Your task to perform on an android device: open app "Spotify" Image 0: 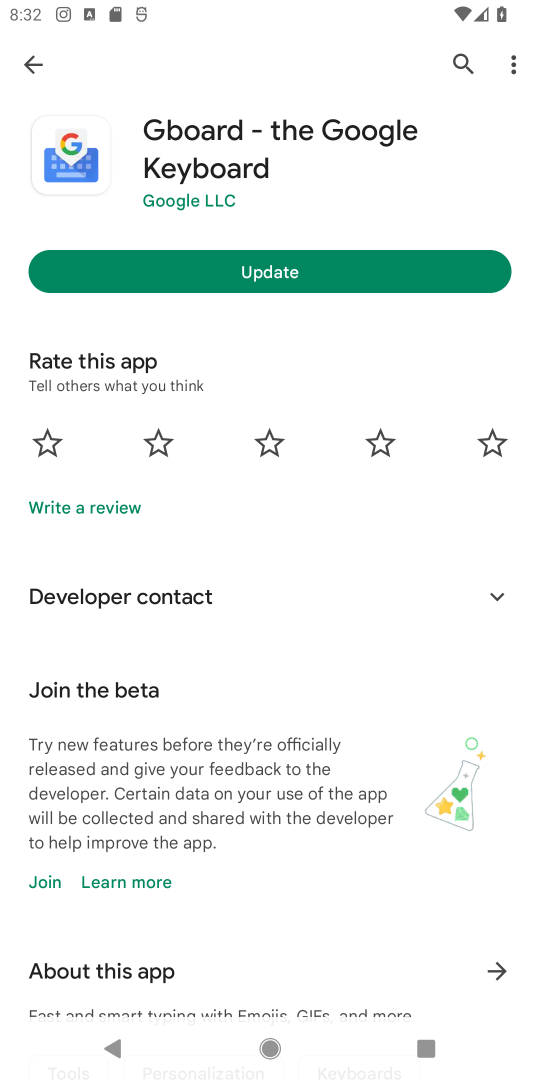
Step 0: click (458, 61)
Your task to perform on an android device: open app "Spotify" Image 1: 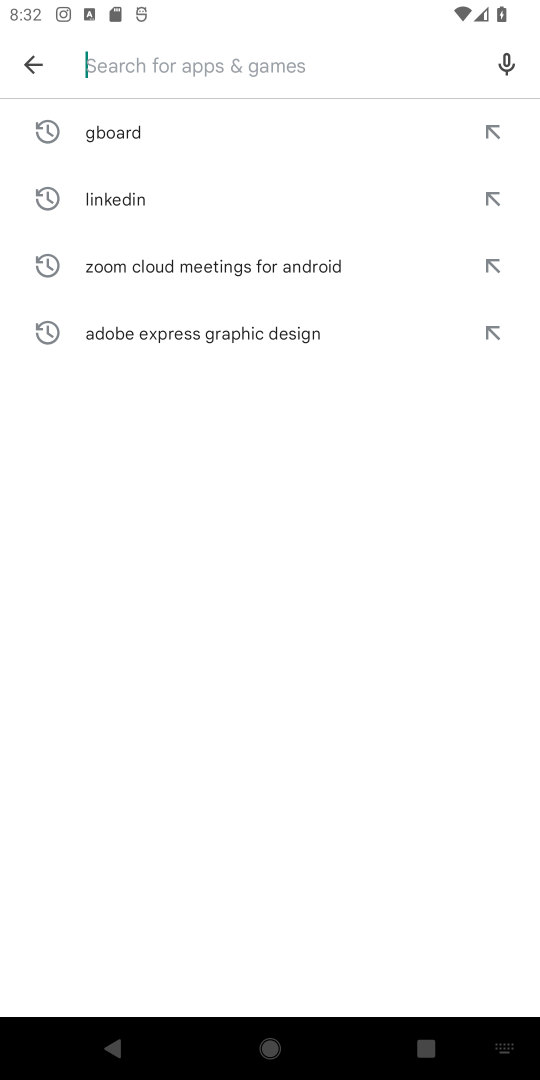
Step 1: type "Spotify"
Your task to perform on an android device: open app "Spotify" Image 2: 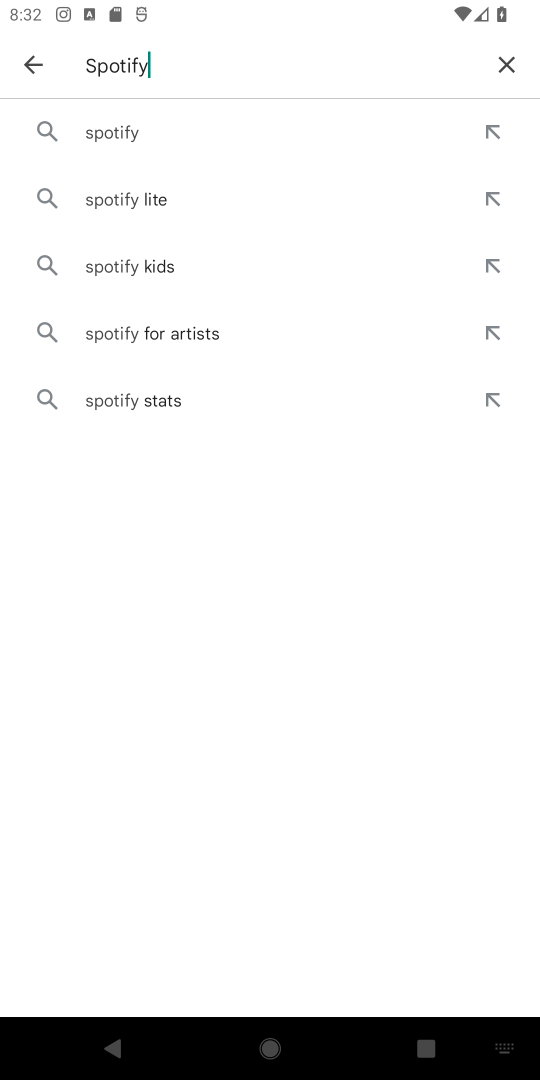
Step 2: click (75, 150)
Your task to perform on an android device: open app "Spotify" Image 3: 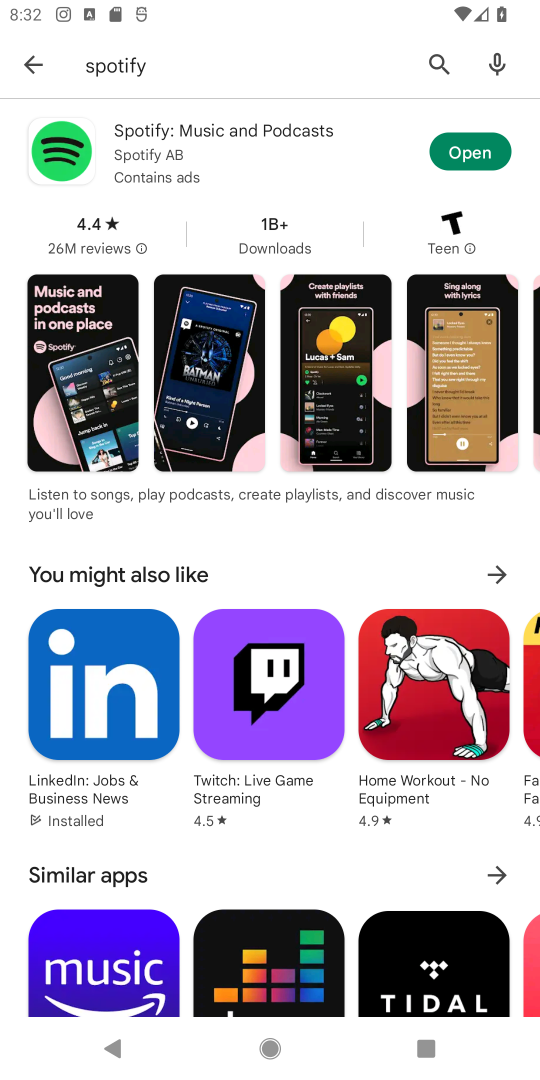
Step 3: click (444, 170)
Your task to perform on an android device: open app "Spotify" Image 4: 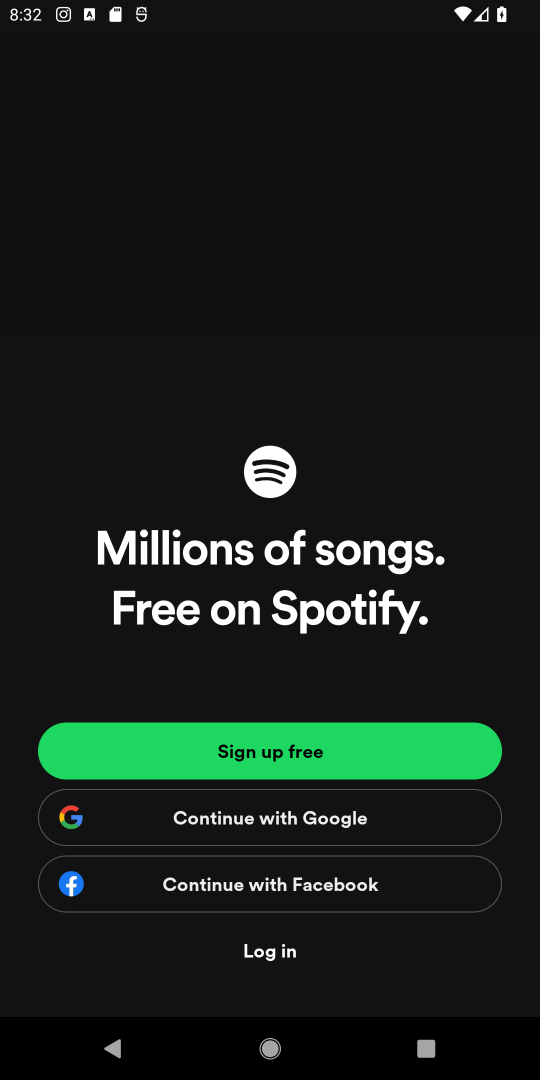
Step 4: task complete